Your task to perform on an android device: Do I have any events tomorrow? Image 0: 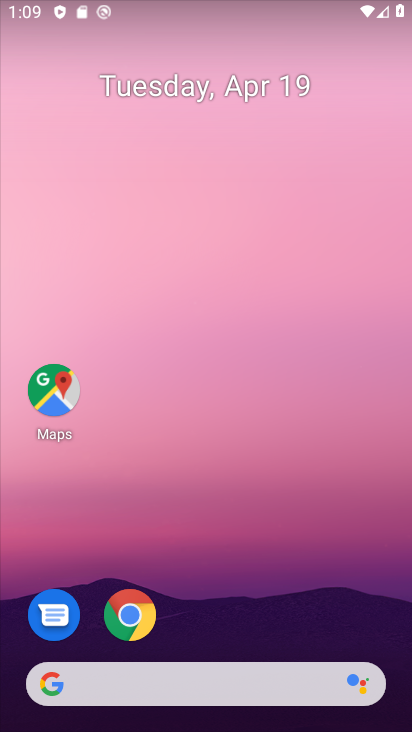
Step 0: drag from (236, 439) to (216, 2)
Your task to perform on an android device: Do I have any events tomorrow? Image 1: 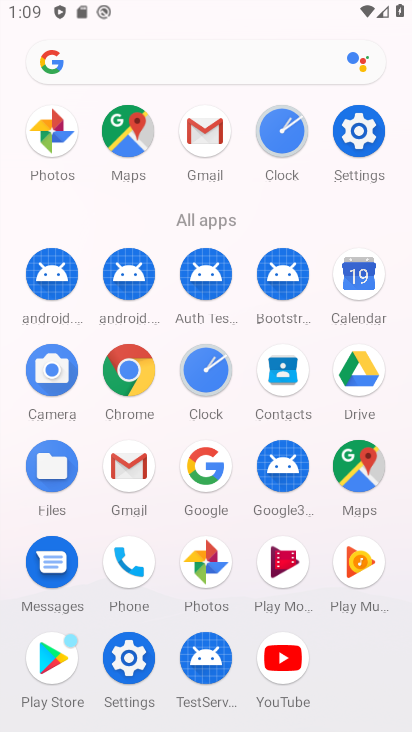
Step 1: click (358, 278)
Your task to perform on an android device: Do I have any events tomorrow? Image 2: 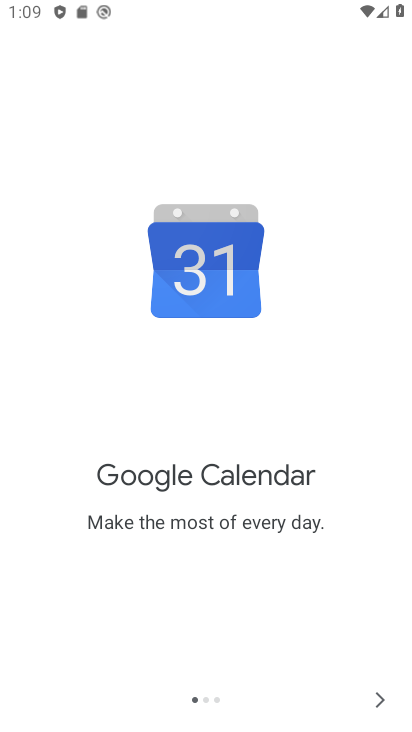
Step 2: click (388, 699)
Your task to perform on an android device: Do I have any events tomorrow? Image 3: 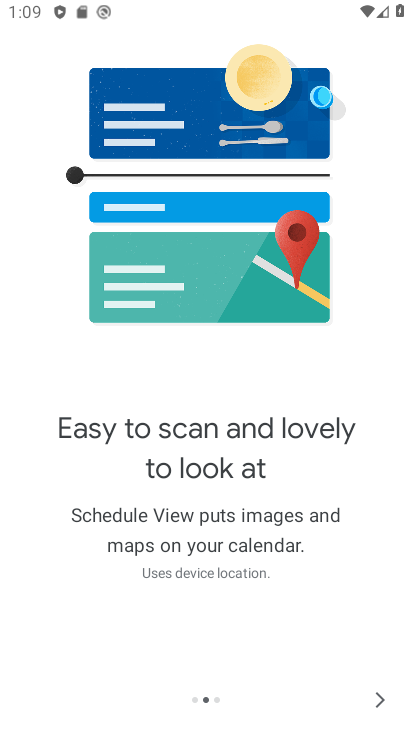
Step 3: click (388, 699)
Your task to perform on an android device: Do I have any events tomorrow? Image 4: 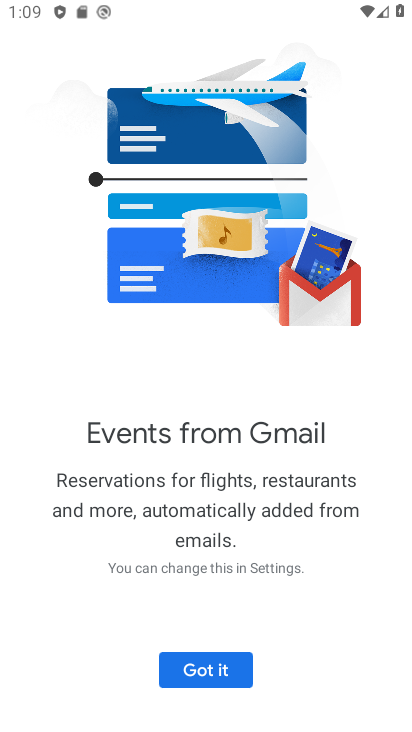
Step 4: click (186, 680)
Your task to perform on an android device: Do I have any events tomorrow? Image 5: 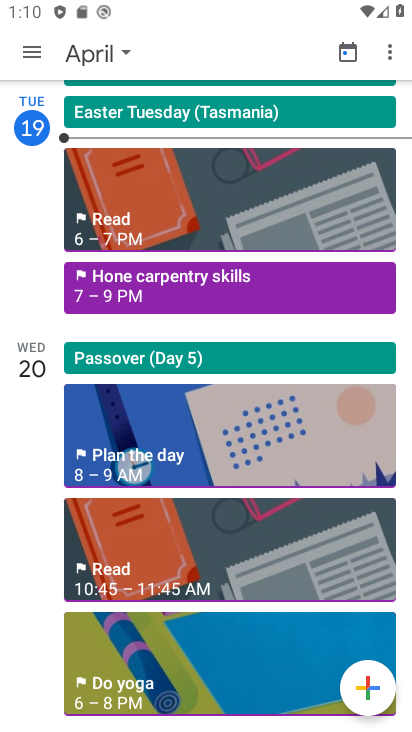
Step 5: click (123, 50)
Your task to perform on an android device: Do I have any events tomorrow? Image 6: 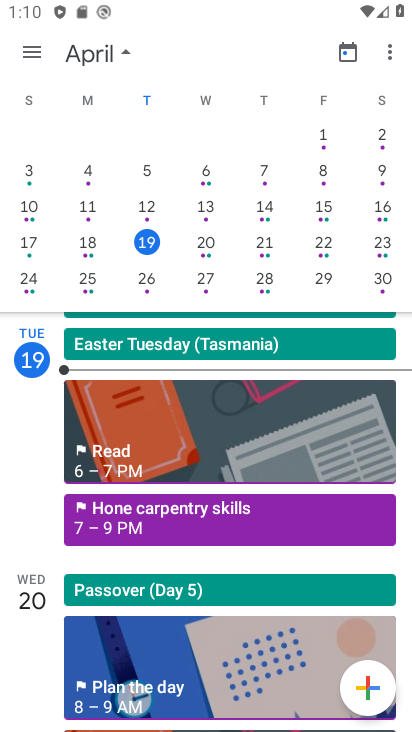
Step 6: click (23, 53)
Your task to perform on an android device: Do I have any events tomorrow? Image 7: 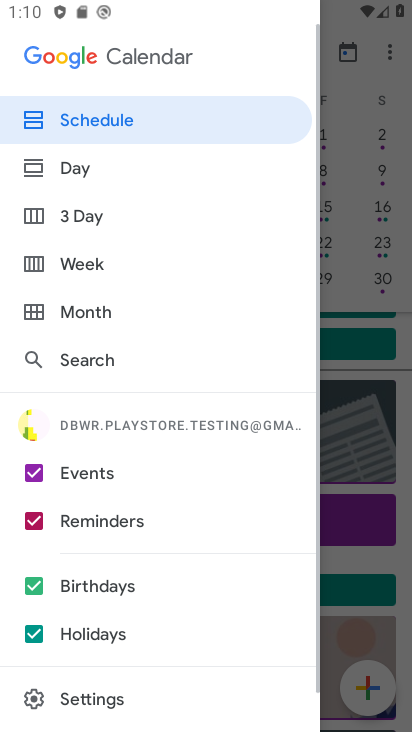
Step 7: click (69, 164)
Your task to perform on an android device: Do I have any events tomorrow? Image 8: 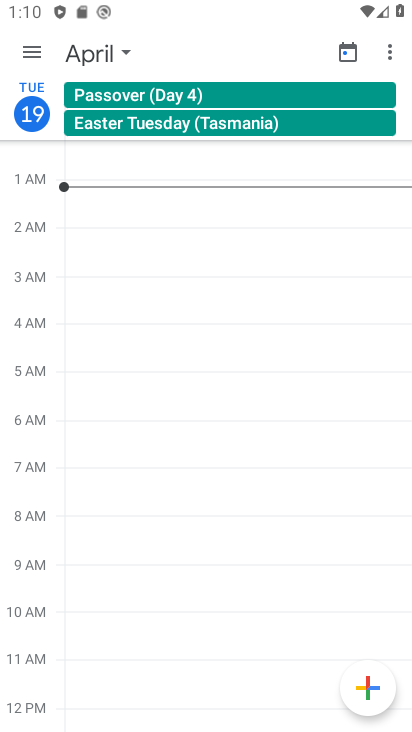
Step 8: click (126, 43)
Your task to perform on an android device: Do I have any events tomorrow? Image 9: 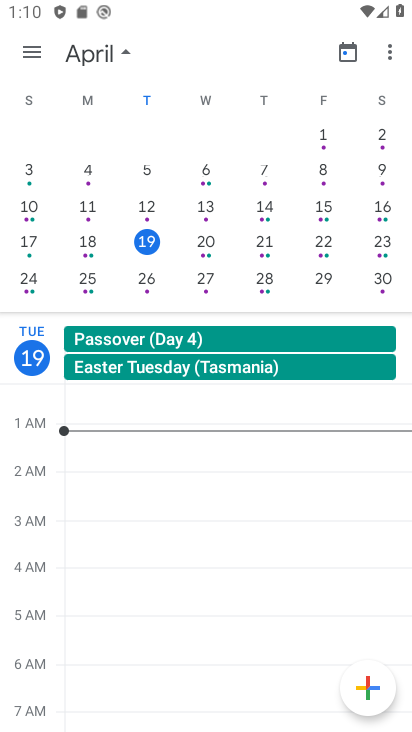
Step 9: click (152, 243)
Your task to perform on an android device: Do I have any events tomorrow? Image 10: 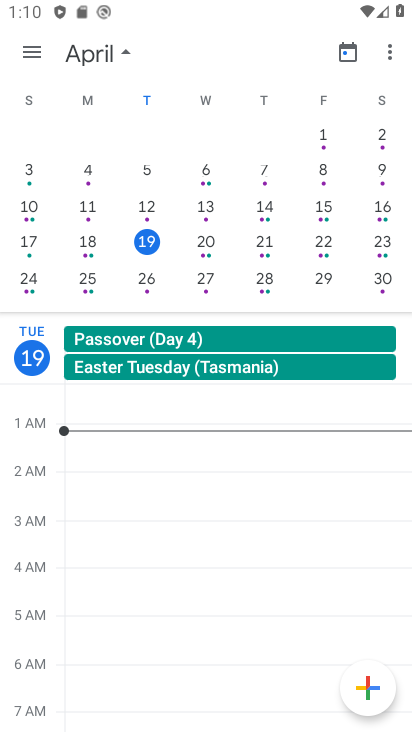
Step 10: click (194, 240)
Your task to perform on an android device: Do I have any events tomorrow? Image 11: 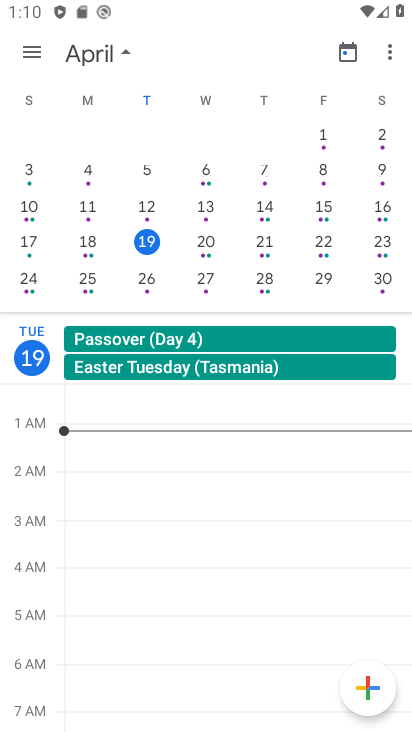
Step 11: click (208, 240)
Your task to perform on an android device: Do I have any events tomorrow? Image 12: 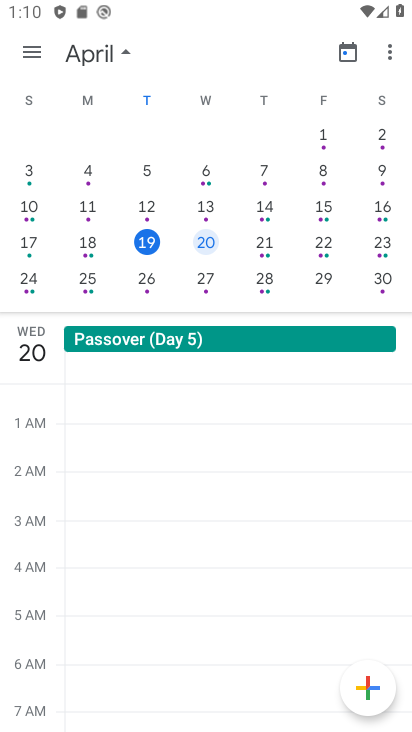
Step 12: task complete